Your task to perform on an android device: uninstall "Reddit" Image 0: 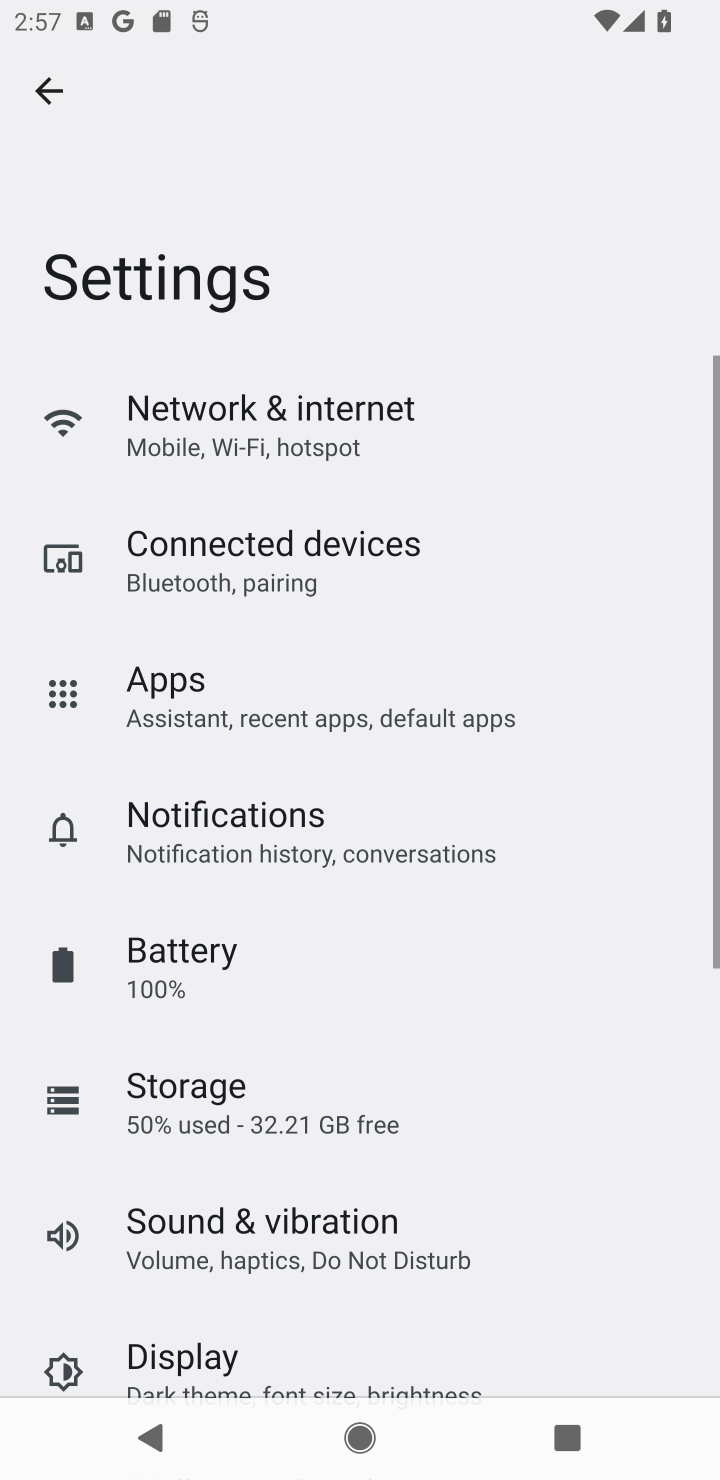
Step 0: press home button
Your task to perform on an android device: uninstall "Reddit" Image 1: 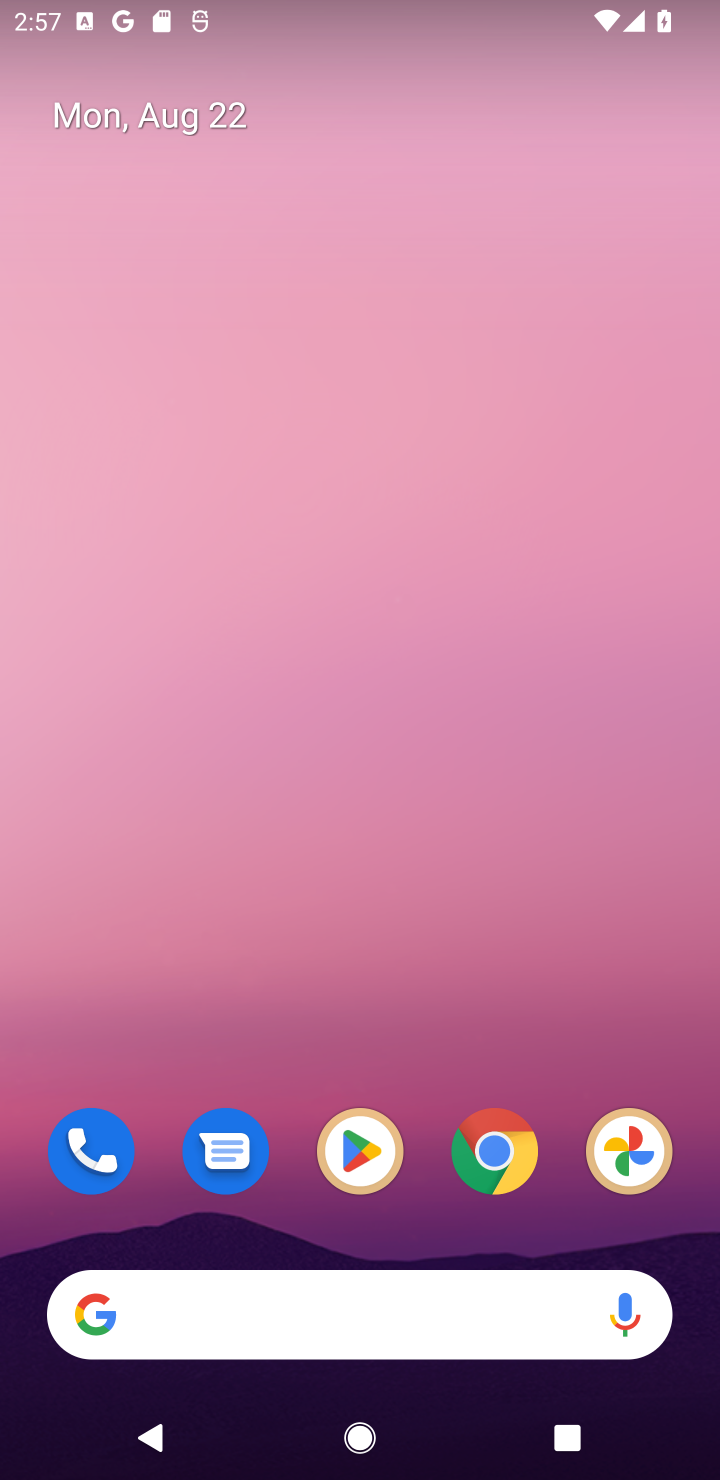
Step 1: click (359, 1140)
Your task to perform on an android device: uninstall "Reddit" Image 2: 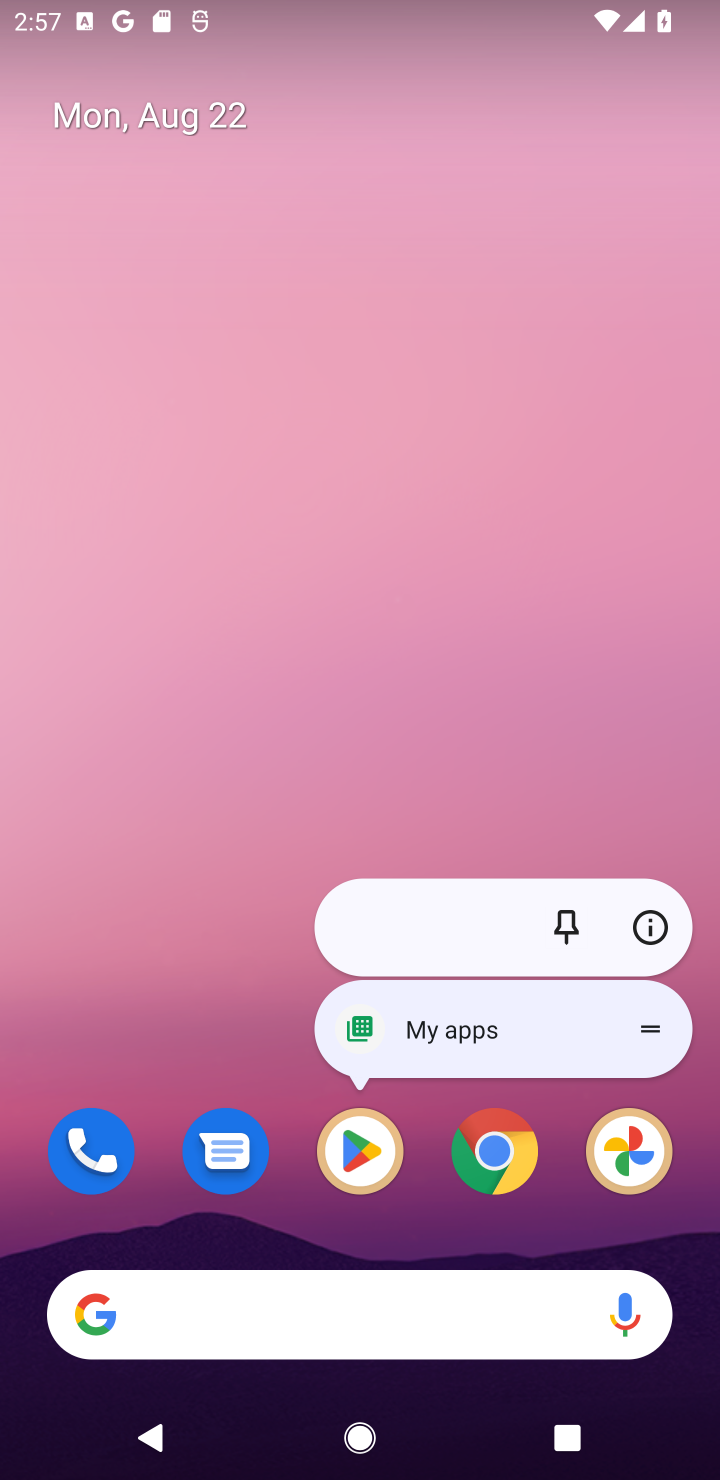
Step 2: click (357, 1151)
Your task to perform on an android device: uninstall "Reddit" Image 3: 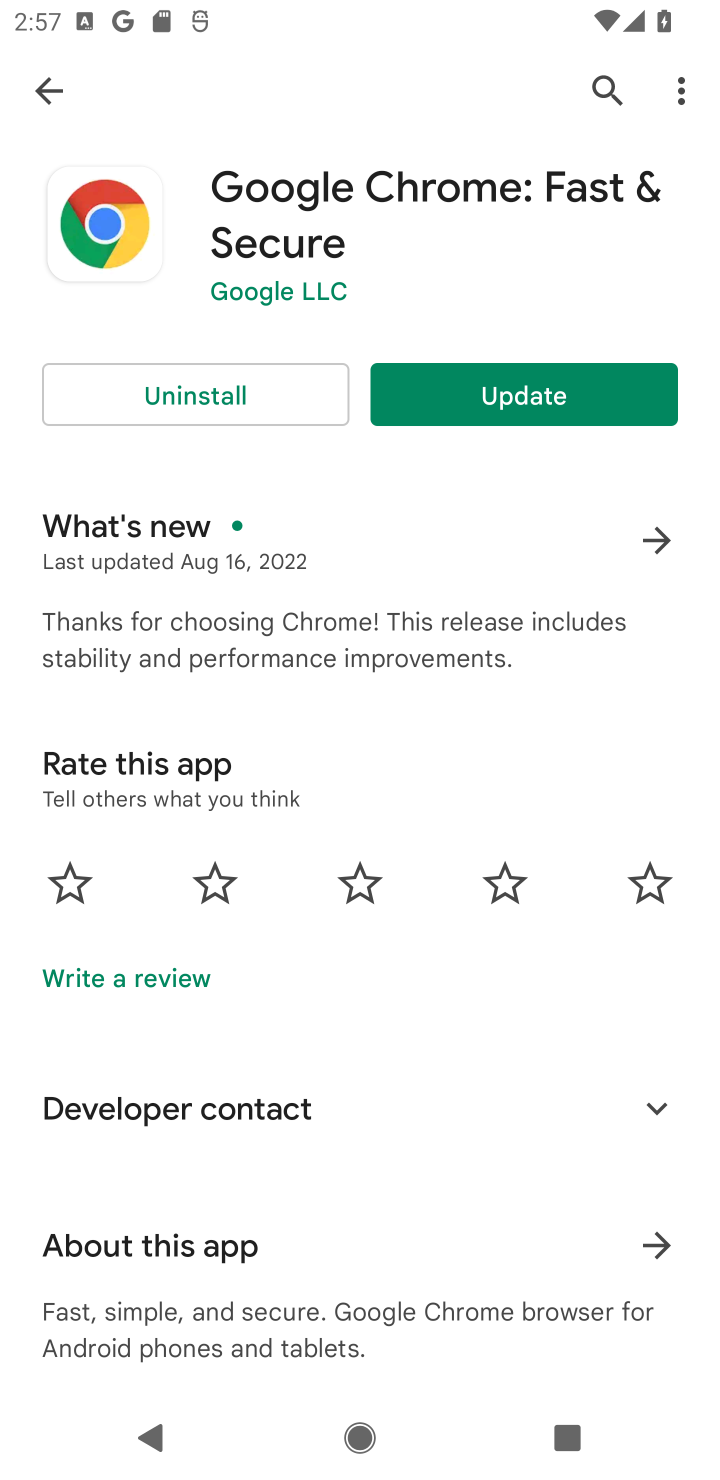
Step 3: click (604, 86)
Your task to perform on an android device: uninstall "Reddit" Image 4: 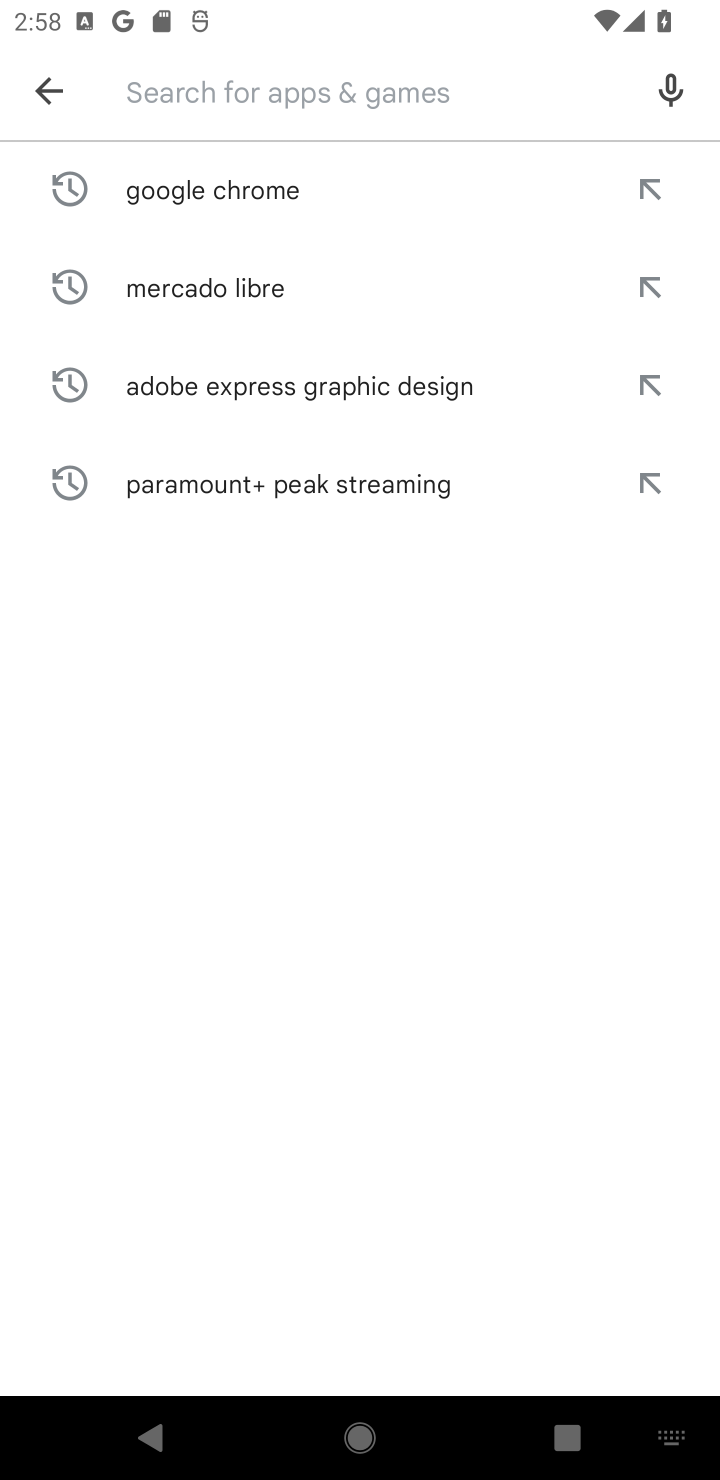
Step 4: type "Reddit"
Your task to perform on an android device: uninstall "Reddit" Image 5: 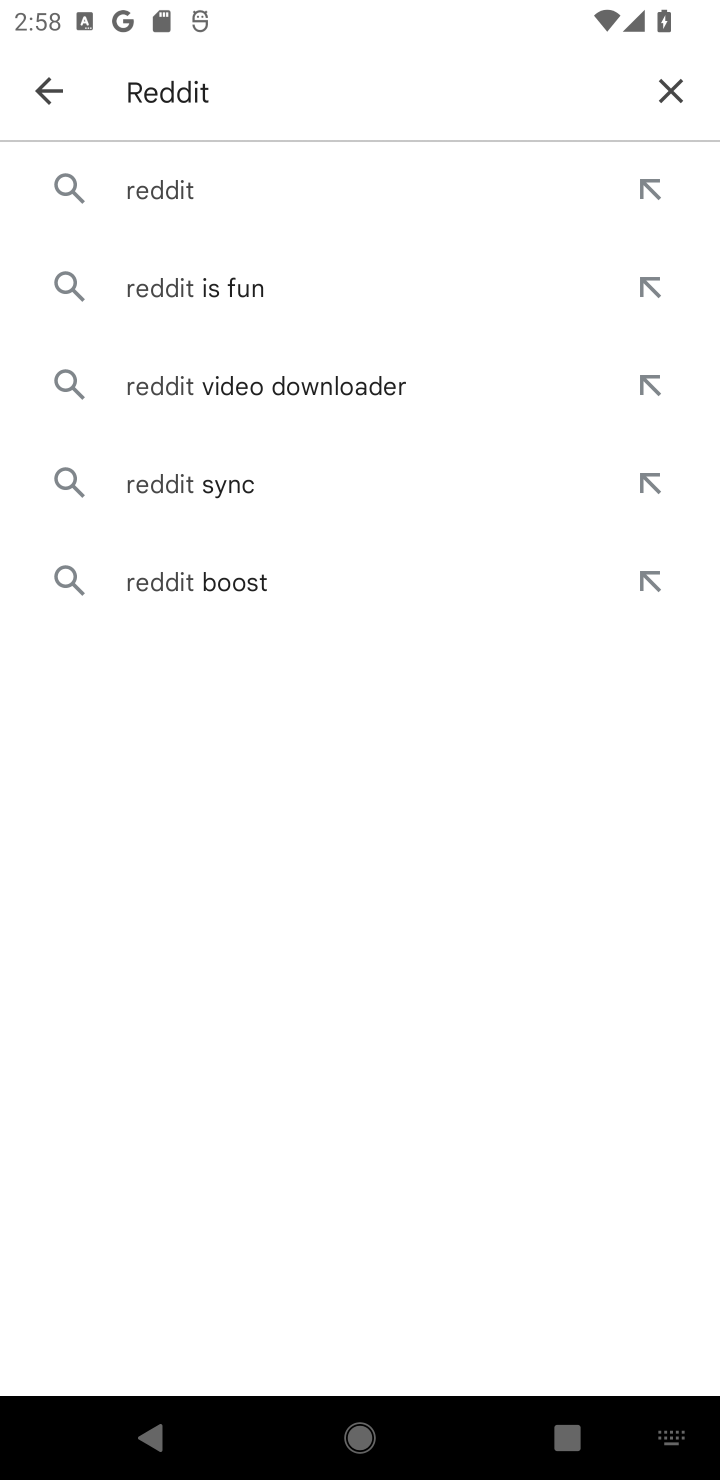
Step 5: click (147, 187)
Your task to perform on an android device: uninstall "Reddit" Image 6: 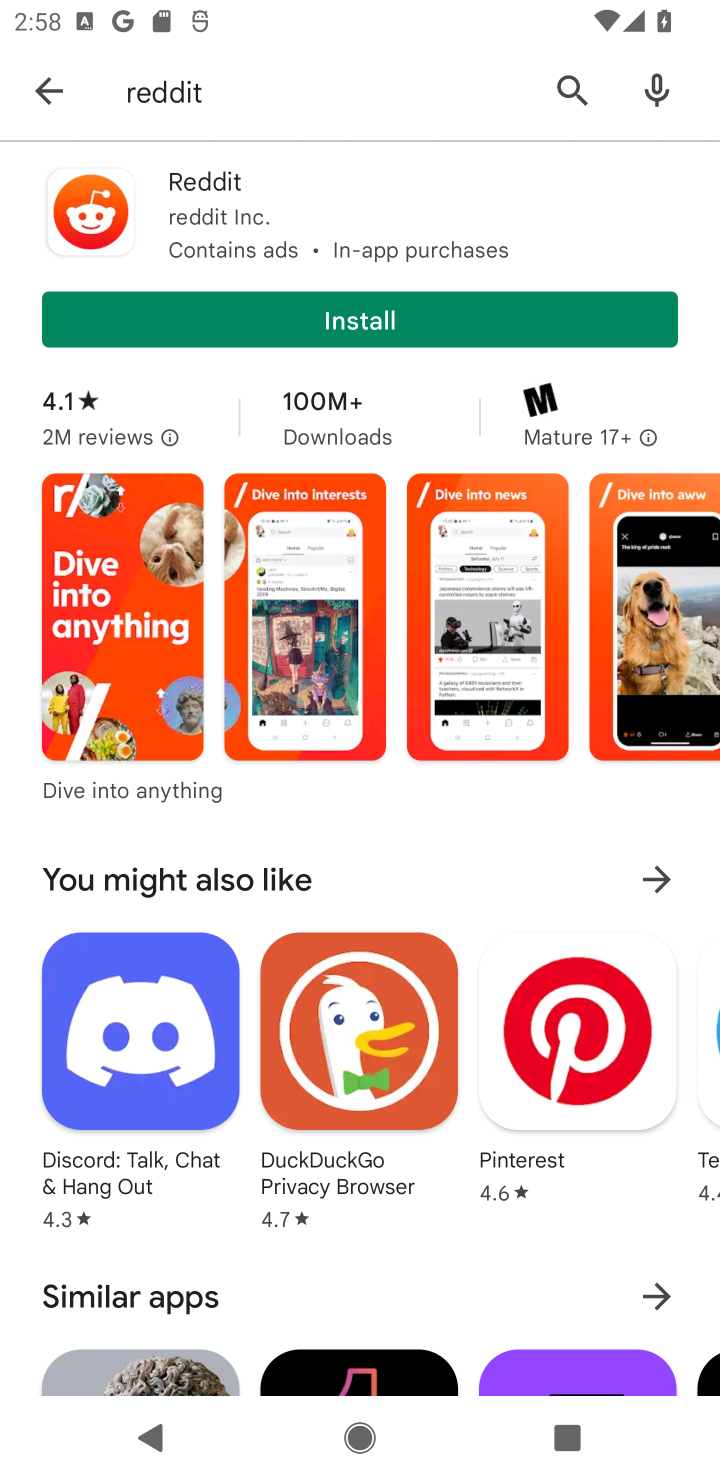
Step 6: task complete